Your task to perform on an android device: turn on priority inbox in the gmail app Image 0: 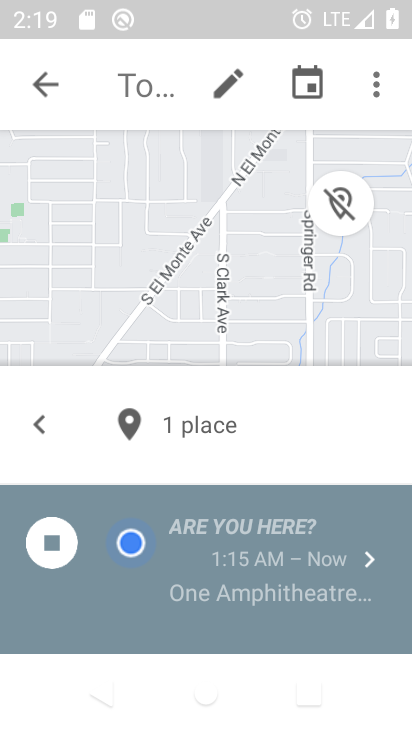
Step 0: press home button
Your task to perform on an android device: turn on priority inbox in the gmail app Image 1: 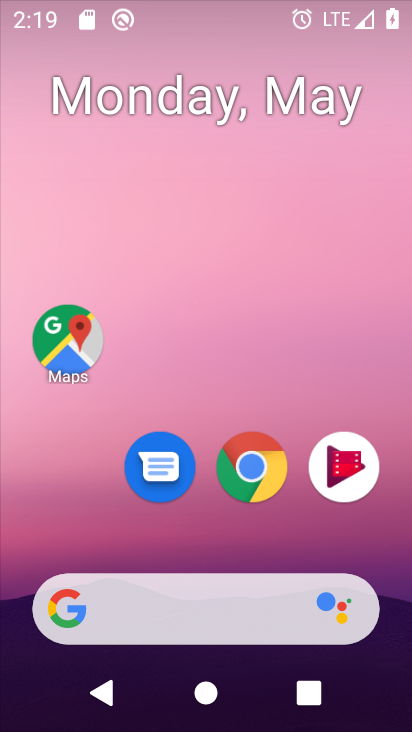
Step 1: drag from (203, 555) to (282, 229)
Your task to perform on an android device: turn on priority inbox in the gmail app Image 2: 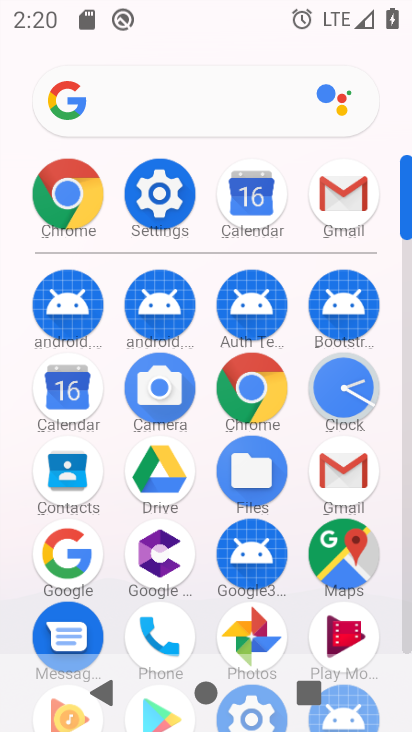
Step 2: click (342, 476)
Your task to perform on an android device: turn on priority inbox in the gmail app Image 3: 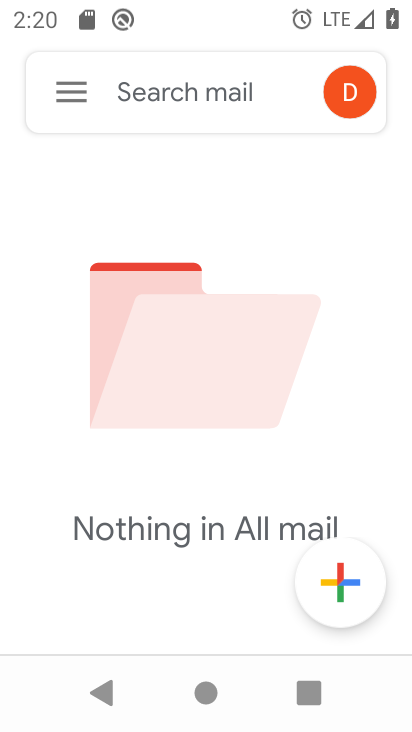
Step 3: click (43, 82)
Your task to perform on an android device: turn on priority inbox in the gmail app Image 4: 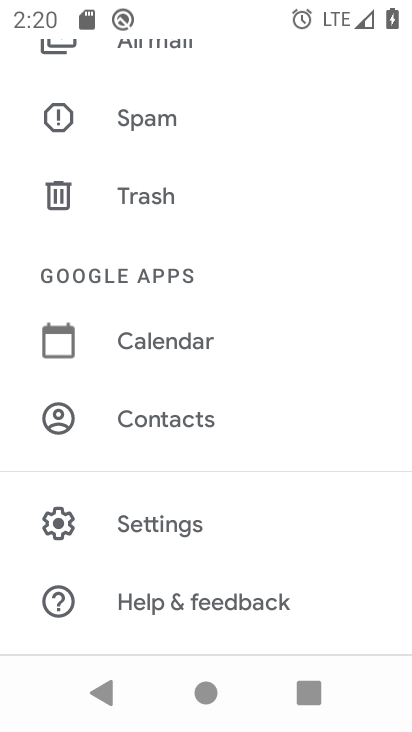
Step 4: click (166, 516)
Your task to perform on an android device: turn on priority inbox in the gmail app Image 5: 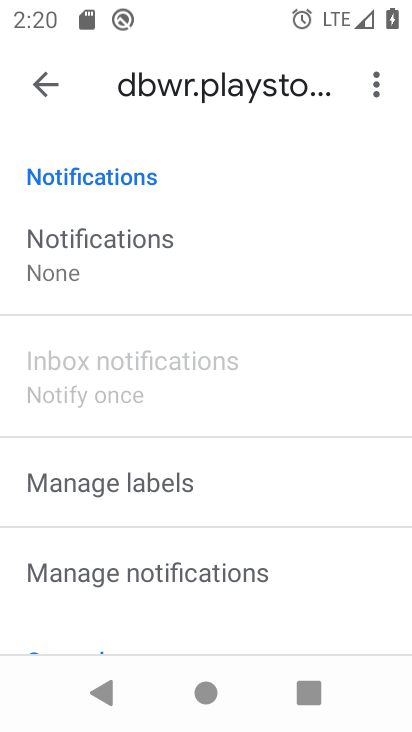
Step 5: drag from (180, 498) to (166, 631)
Your task to perform on an android device: turn on priority inbox in the gmail app Image 6: 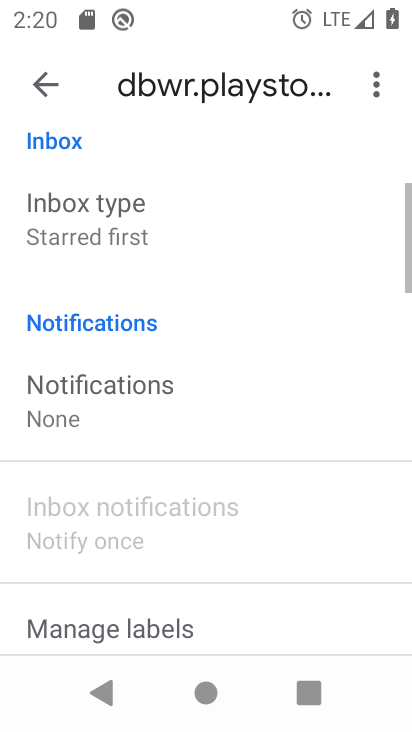
Step 6: drag from (206, 254) to (167, 563)
Your task to perform on an android device: turn on priority inbox in the gmail app Image 7: 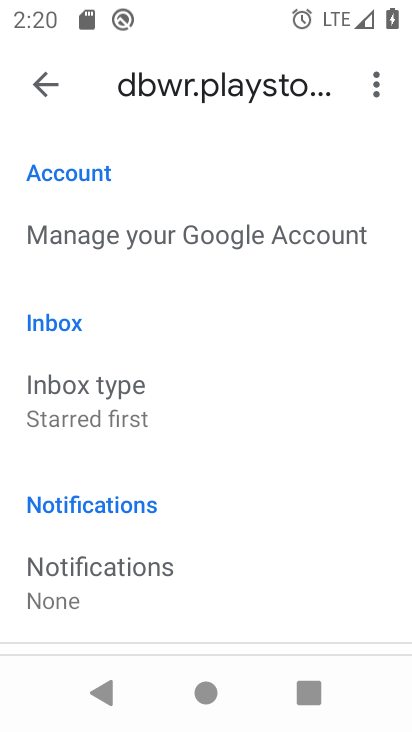
Step 7: click (94, 393)
Your task to perform on an android device: turn on priority inbox in the gmail app Image 8: 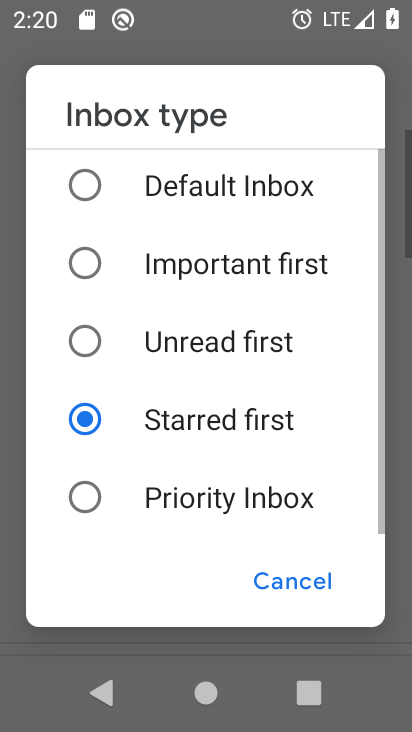
Step 8: click (164, 504)
Your task to perform on an android device: turn on priority inbox in the gmail app Image 9: 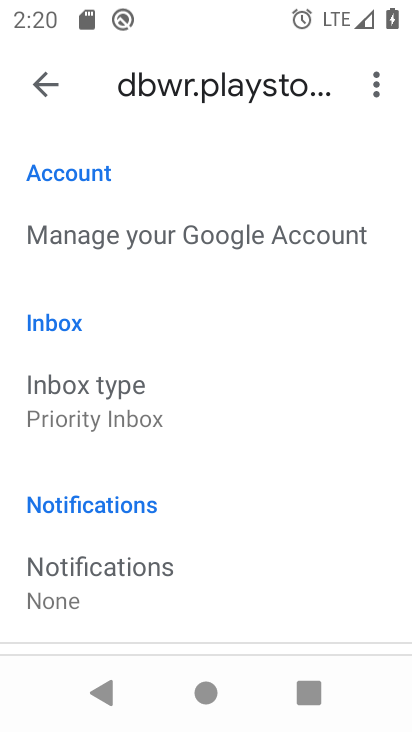
Step 9: task complete